Your task to perform on an android device: turn on the 12-hour format for clock Image 0: 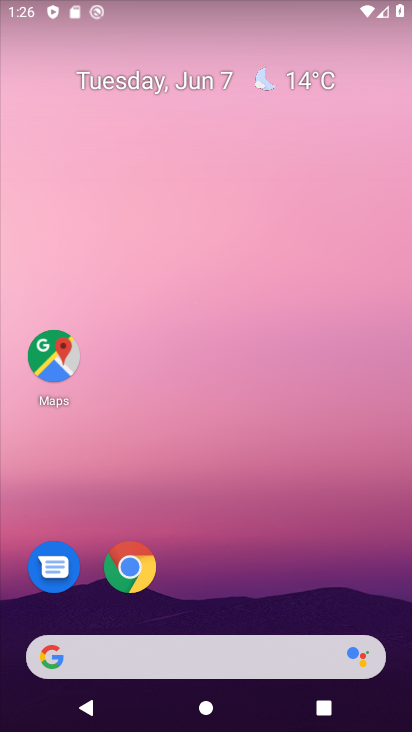
Step 0: drag from (320, 575) to (360, 0)
Your task to perform on an android device: turn on the 12-hour format for clock Image 1: 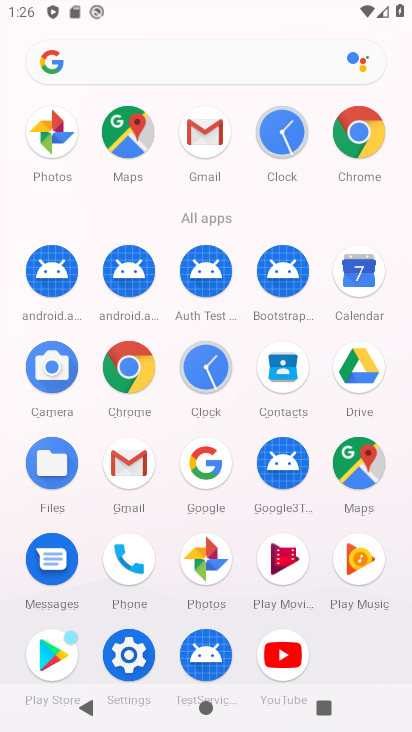
Step 1: click (212, 364)
Your task to perform on an android device: turn on the 12-hour format for clock Image 2: 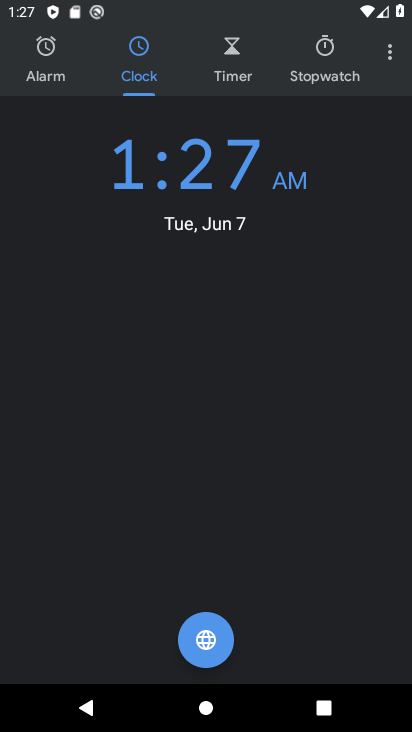
Step 2: click (392, 54)
Your task to perform on an android device: turn on the 12-hour format for clock Image 3: 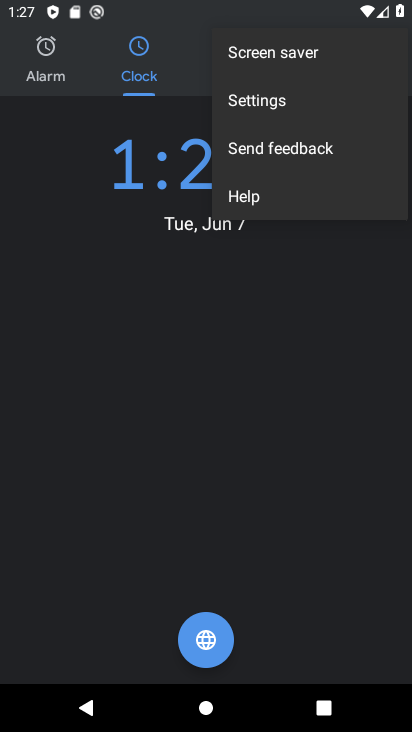
Step 3: click (266, 101)
Your task to perform on an android device: turn on the 12-hour format for clock Image 4: 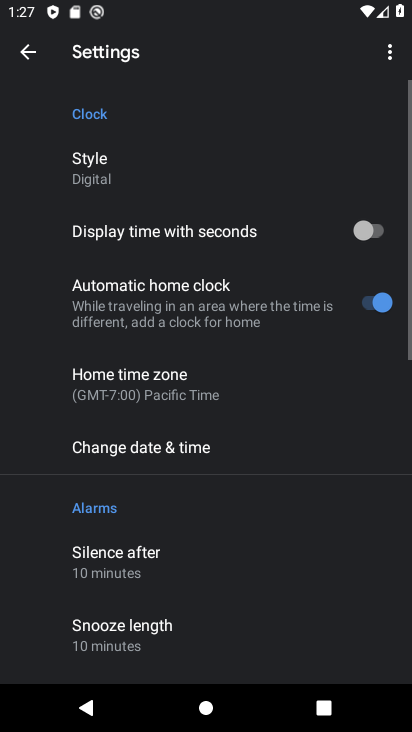
Step 4: drag from (184, 577) to (274, 1)
Your task to perform on an android device: turn on the 12-hour format for clock Image 5: 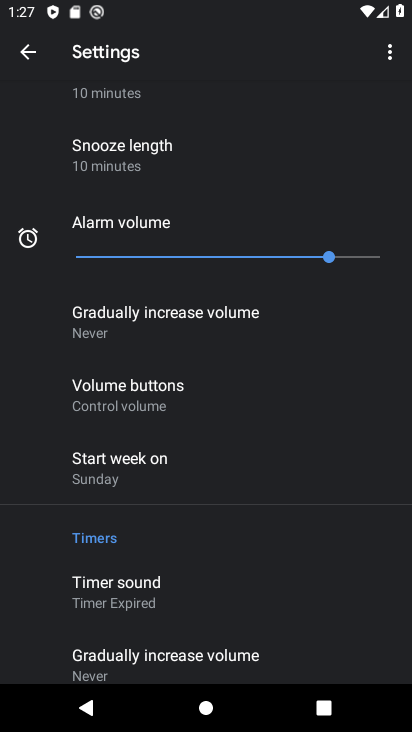
Step 5: drag from (168, 175) to (202, 539)
Your task to perform on an android device: turn on the 12-hour format for clock Image 6: 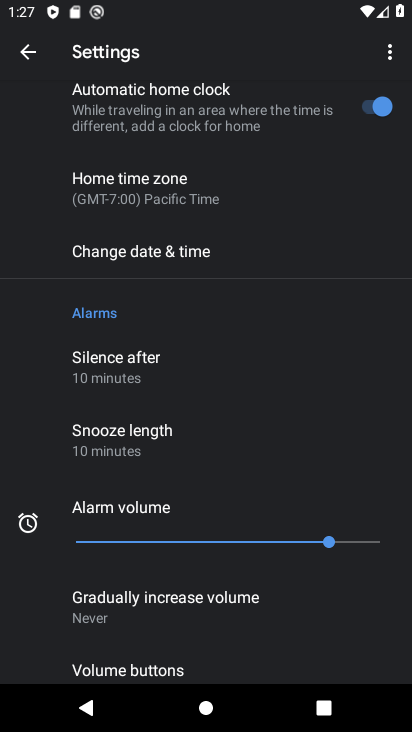
Step 6: click (133, 250)
Your task to perform on an android device: turn on the 12-hour format for clock Image 7: 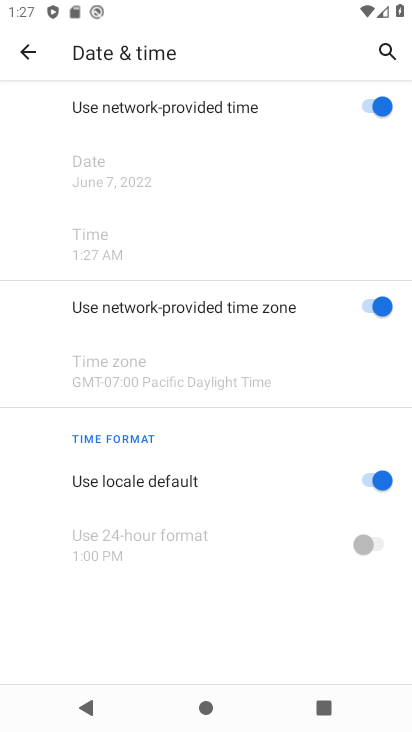
Step 7: task complete